Your task to perform on an android device: Go to Reddit.com Image 0: 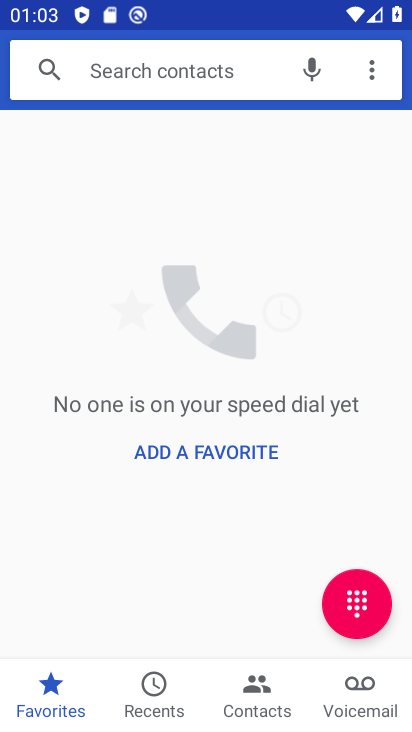
Step 0: press home button
Your task to perform on an android device: Go to Reddit.com Image 1: 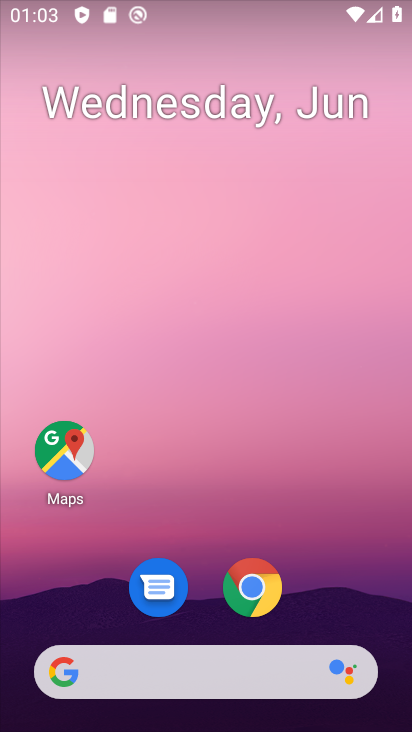
Step 1: click (254, 571)
Your task to perform on an android device: Go to Reddit.com Image 2: 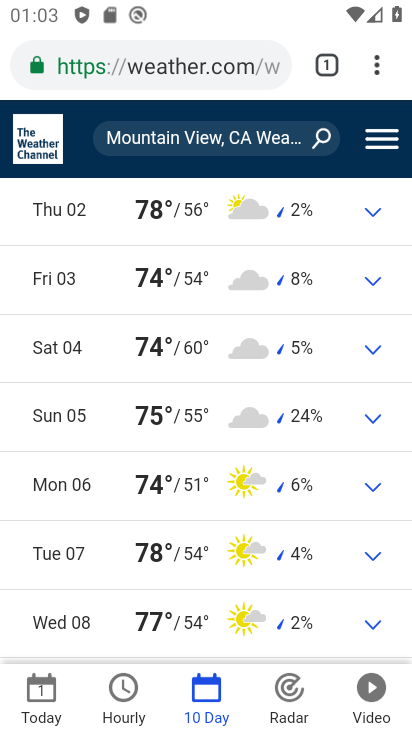
Step 2: click (242, 54)
Your task to perform on an android device: Go to Reddit.com Image 3: 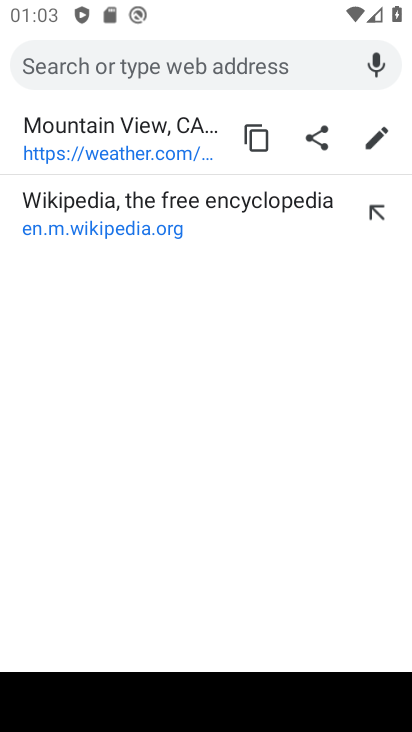
Step 3: type "reddit.com"
Your task to perform on an android device: Go to Reddit.com Image 4: 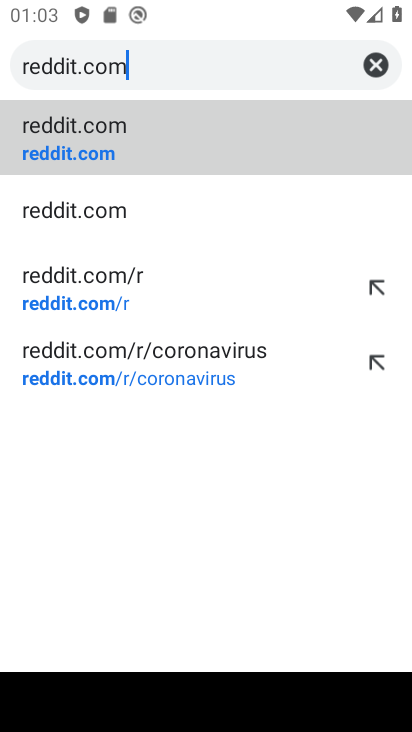
Step 4: click (45, 147)
Your task to perform on an android device: Go to Reddit.com Image 5: 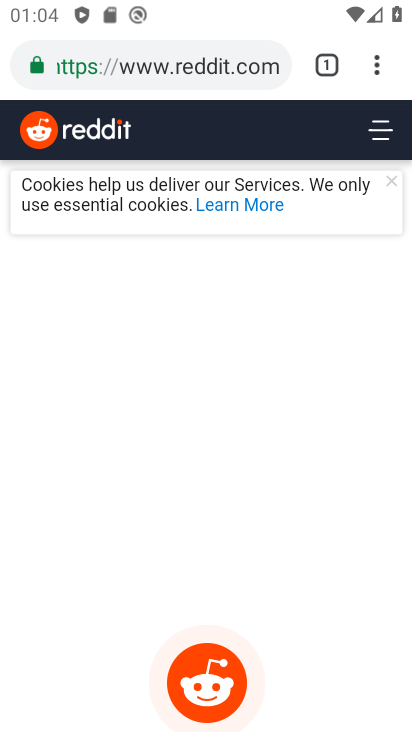
Step 5: task complete